Your task to perform on an android device: Turn on the flashlight Image 0: 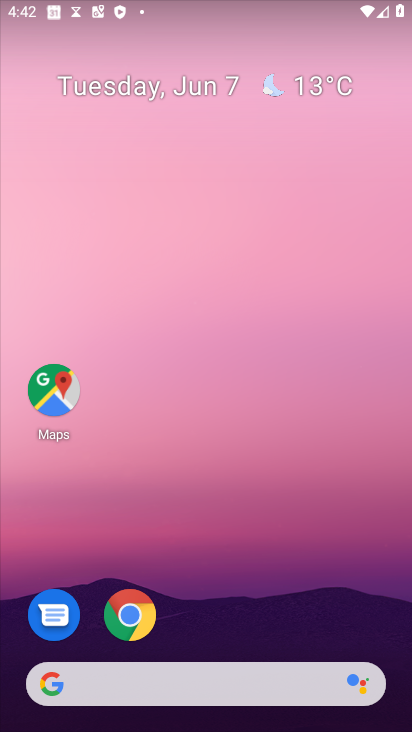
Step 0: drag from (232, 682) to (129, 100)
Your task to perform on an android device: Turn on the flashlight Image 1: 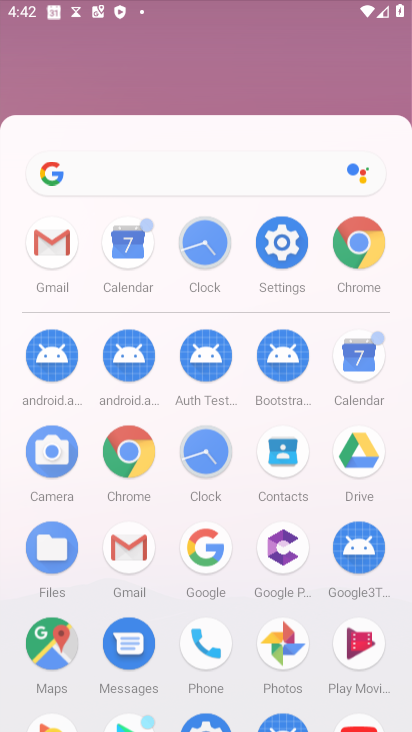
Step 1: task complete